Your task to perform on an android device: Search for pizza restaurants on Maps Image 0: 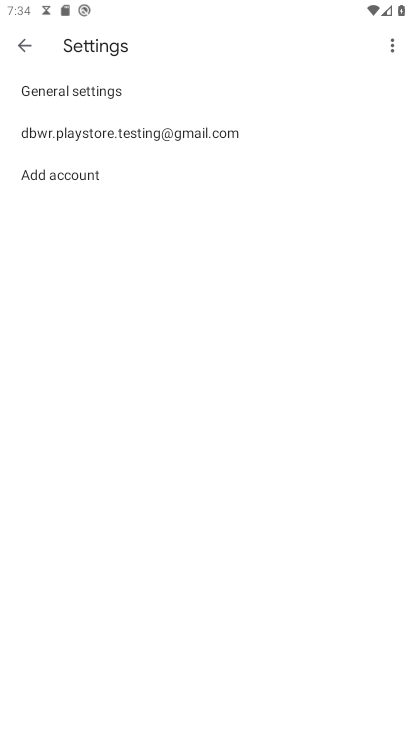
Step 0: press back button
Your task to perform on an android device: Search for pizza restaurants on Maps Image 1: 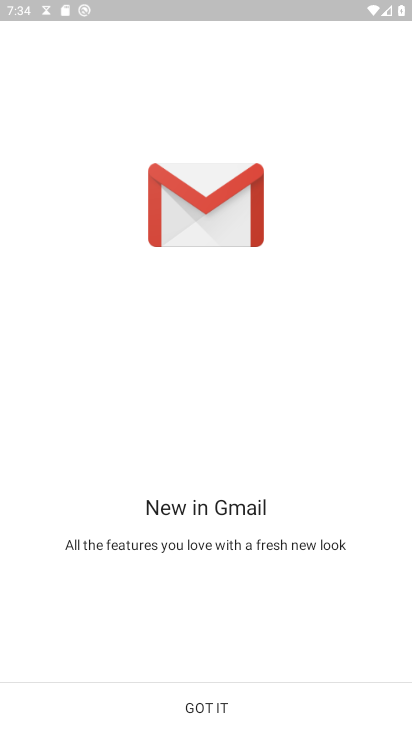
Step 1: press back button
Your task to perform on an android device: Search for pizza restaurants on Maps Image 2: 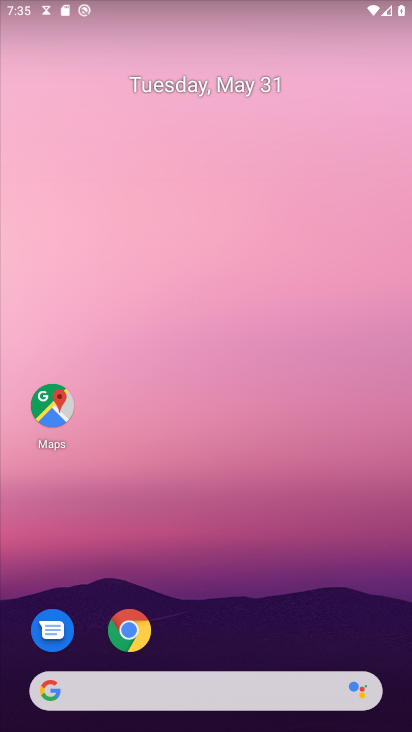
Step 2: click (52, 404)
Your task to perform on an android device: Search for pizza restaurants on Maps Image 3: 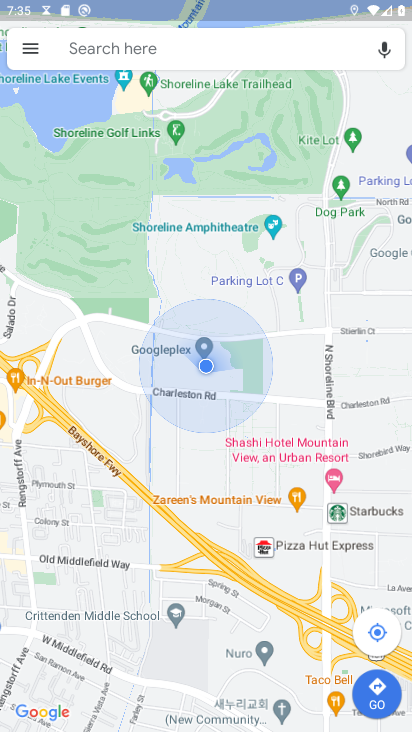
Step 3: click (170, 50)
Your task to perform on an android device: Search for pizza restaurants on Maps Image 4: 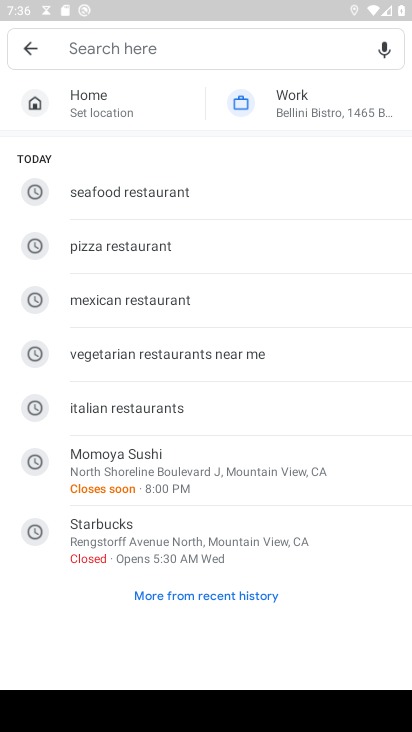
Step 4: type "pizza restaurants"
Your task to perform on an android device: Search for pizza restaurants on Maps Image 5: 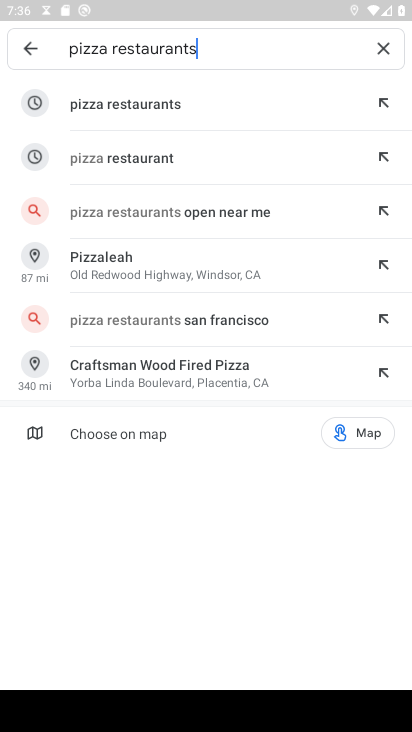
Step 5: click (104, 101)
Your task to perform on an android device: Search for pizza restaurants on Maps Image 6: 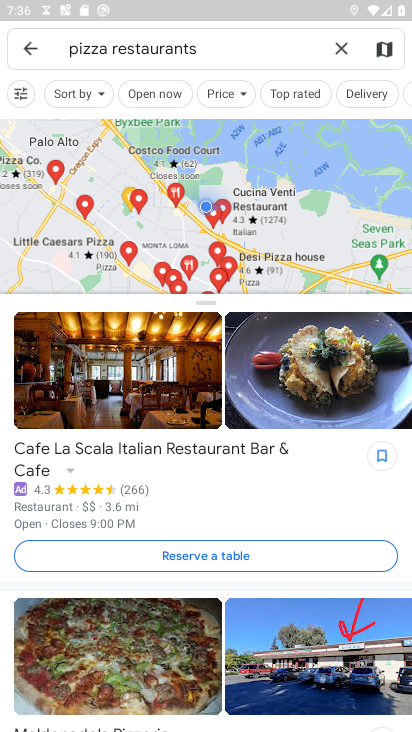
Step 6: task complete